Your task to perform on an android device: Open the phone app and click the voicemail tab. Image 0: 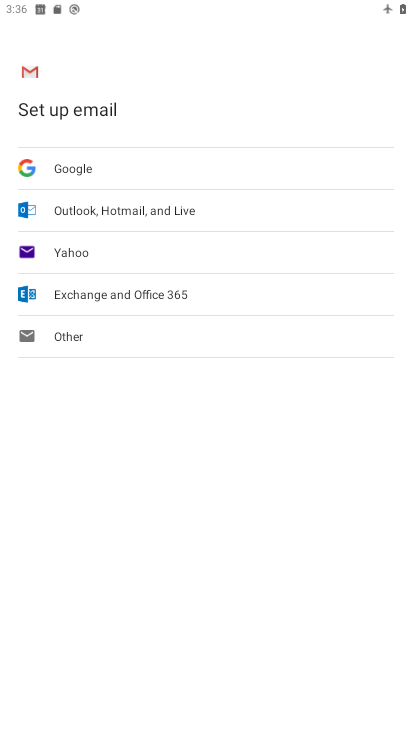
Step 0: press home button
Your task to perform on an android device: Open the phone app and click the voicemail tab. Image 1: 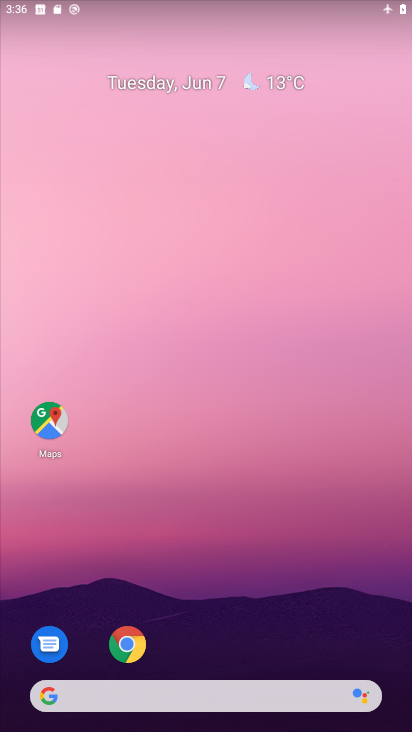
Step 1: drag from (322, 617) to (367, 180)
Your task to perform on an android device: Open the phone app and click the voicemail tab. Image 2: 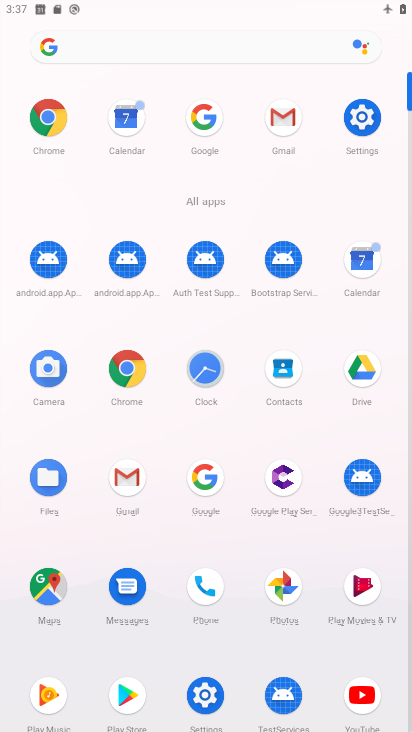
Step 2: click (198, 595)
Your task to perform on an android device: Open the phone app and click the voicemail tab. Image 3: 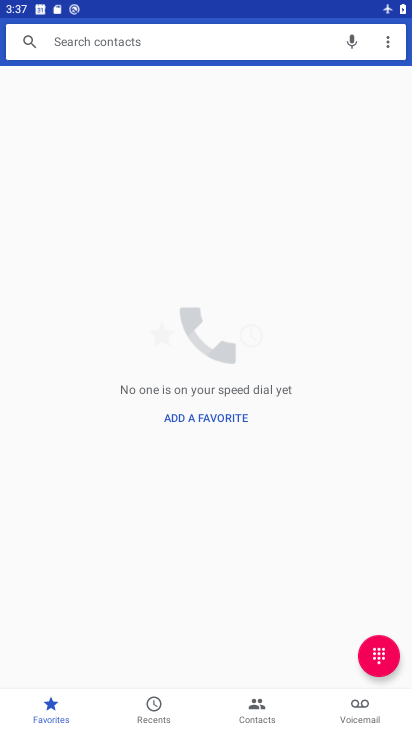
Step 3: task complete